Your task to perform on an android device: change notifications settings Image 0: 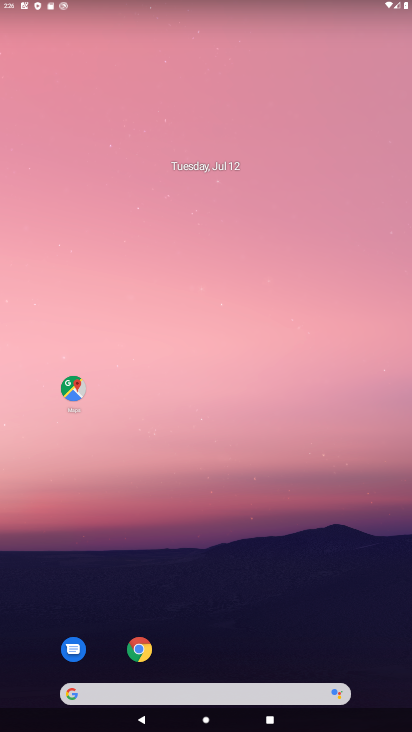
Step 0: drag from (242, 651) to (203, 325)
Your task to perform on an android device: change notifications settings Image 1: 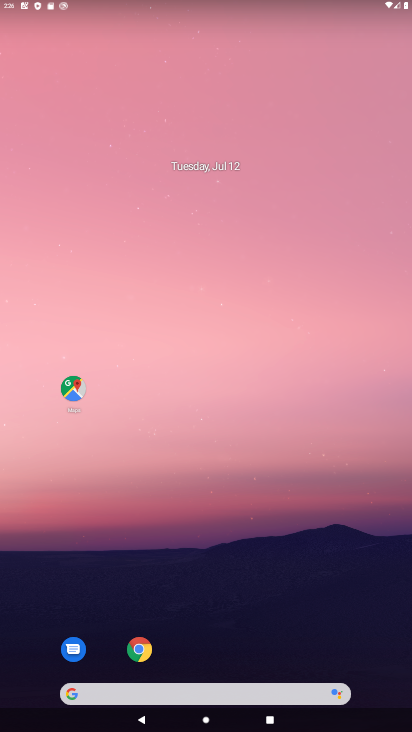
Step 1: drag from (214, 649) to (185, 127)
Your task to perform on an android device: change notifications settings Image 2: 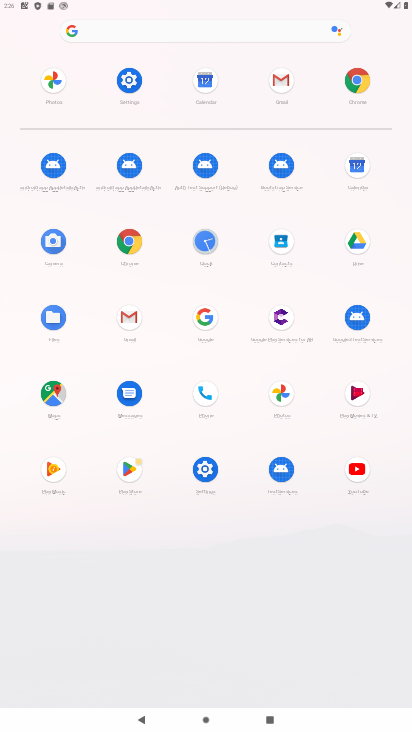
Step 2: click (139, 91)
Your task to perform on an android device: change notifications settings Image 3: 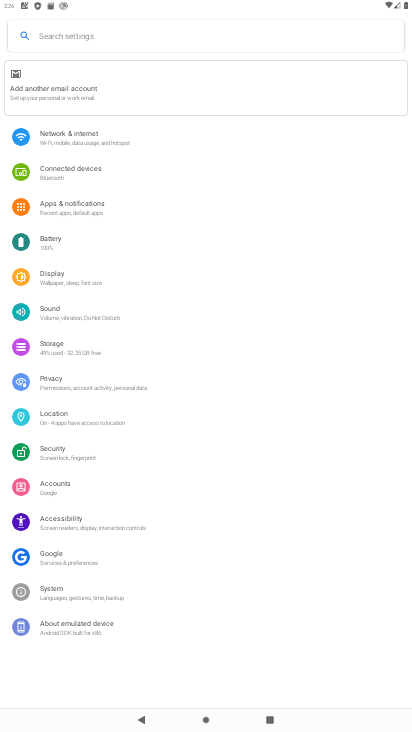
Step 3: click (113, 205)
Your task to perform on an android device: change notifications settings Image 4: 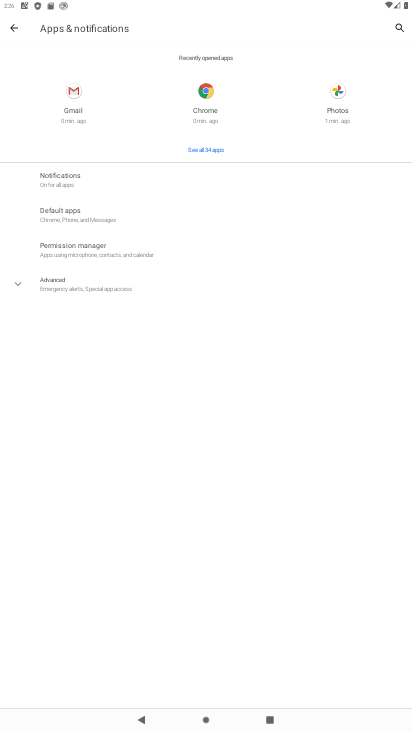
Step 4: click (103, 173)
Your task to perform on an android device: change notifications settings Image 5: 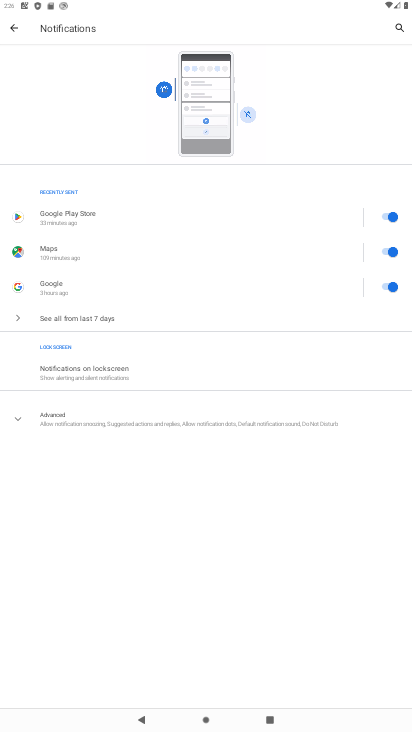
Step 5: click (94, 409)
Your task to perform on an android device: change notifications settings Image 6: 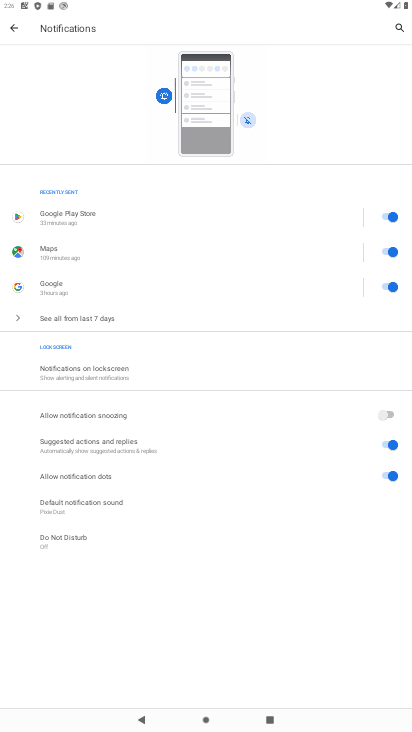
Step 6: task complete